Your task to perform on an android device: Open Yahoo.com Image 0: 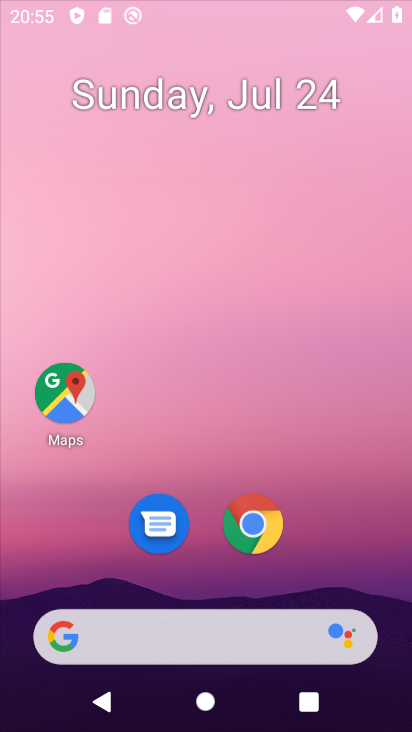
Step 0: press home button
Your task to perform on an android device: Open Yahoo.com Image 1: 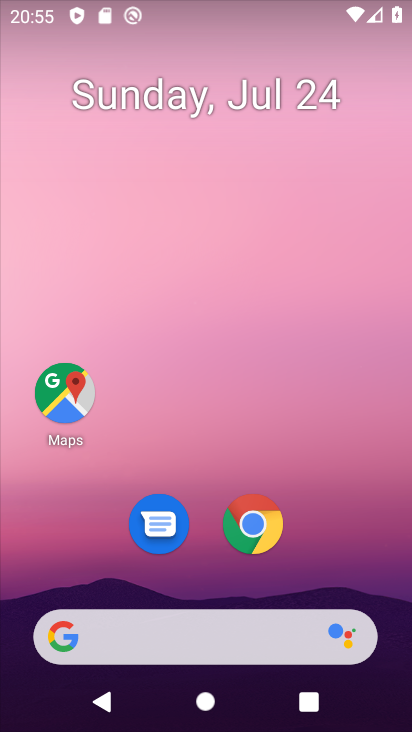
Step 1: click (247, 520)
Your task to perform on an android device: Open Yahoo.com Image 2: 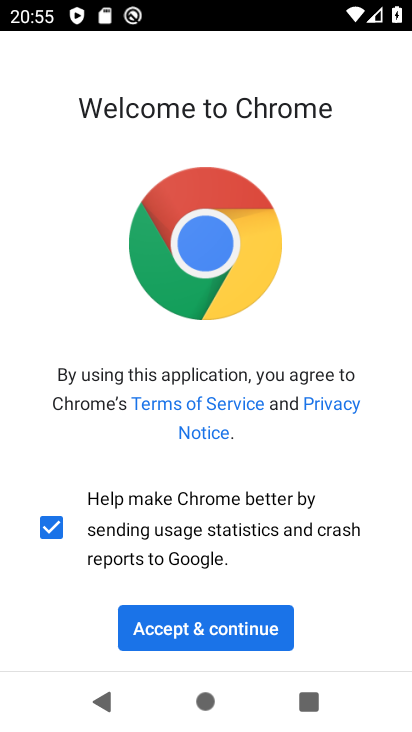
Step 2: click (198, 637)
Your task to perform on an android device: Open Yahoo.com Image 3: 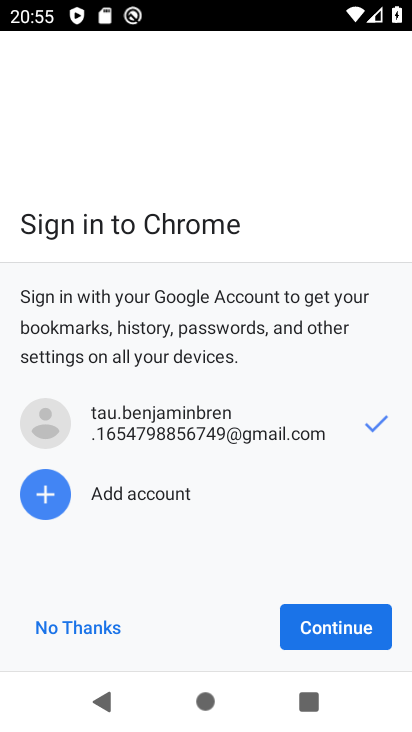
Step 3: click (337, 627)
Your task to perform on an android device: Open Yahoo.com Image 4: 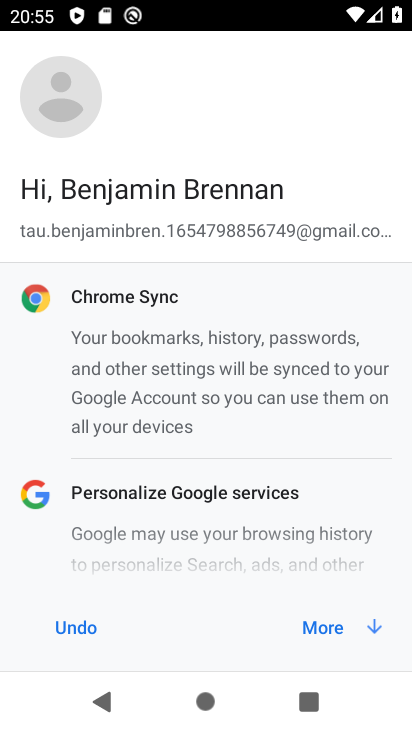
Step 4: click (337, 626)
Your task to perform on an android device: Open Yahoo.com Image 5: 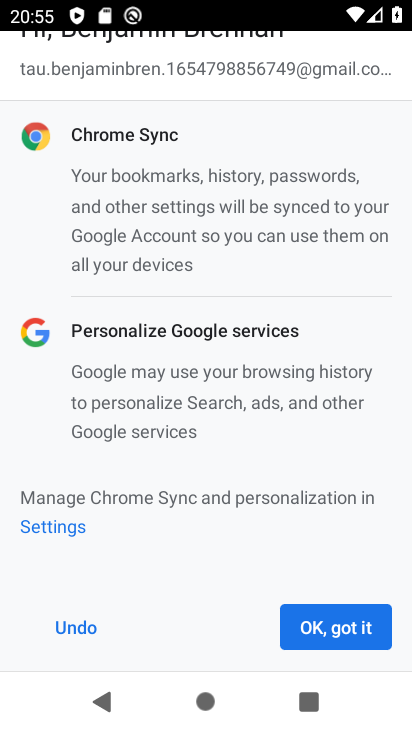
Step 5: click (337, 624)
Your task to perform on an android device: Open Yahoo.com Image 6: 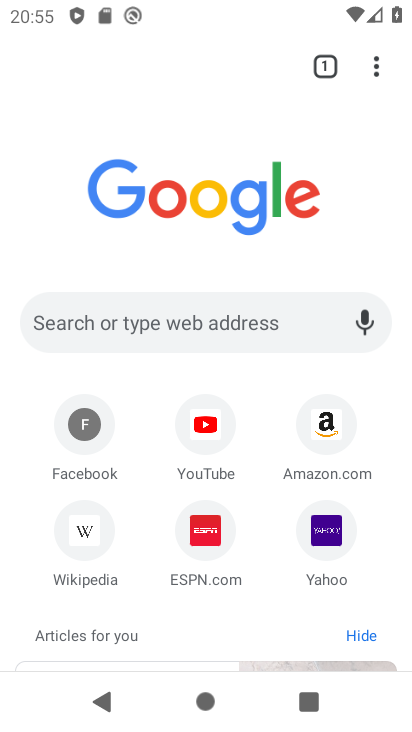
Step 6: click (335, 536)
Your task to perform on an android device: Open Yahoo.com Image 7: 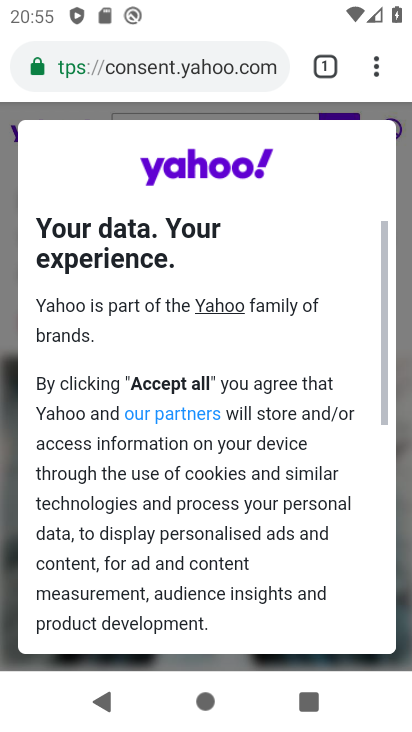
Step 7: drag from (258, 584) to (362, 134)
Your task to perform on an android device: Open Yahoo.com Image 8: 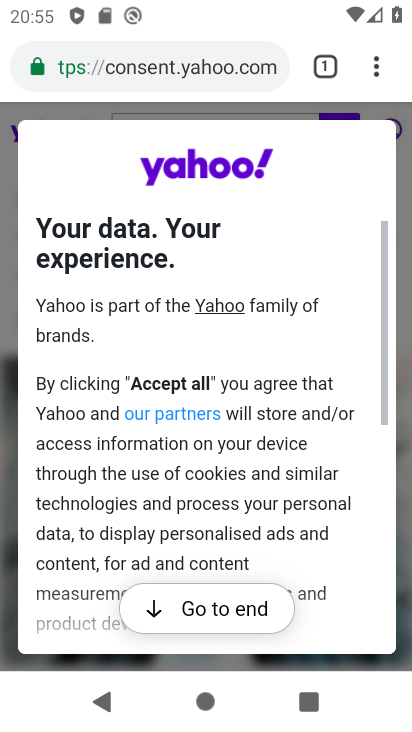
Step 8: click (210, 601)
Your task to perform on an android device: Open Yahoo.com Image 9: 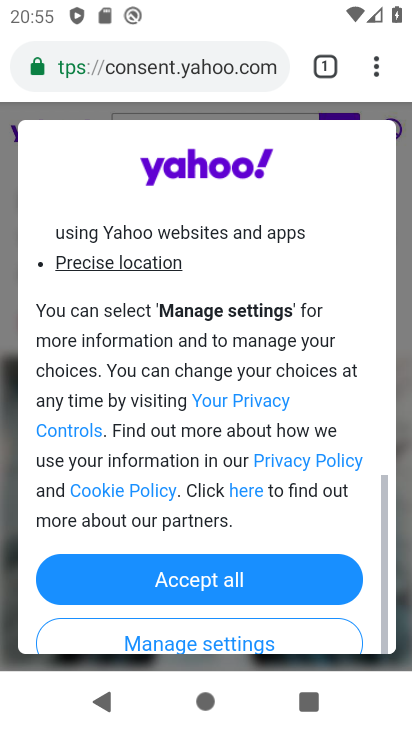
Step 9: click (212, 582)
Your task to perform on an android device: Open Yahoo.com Image 10: 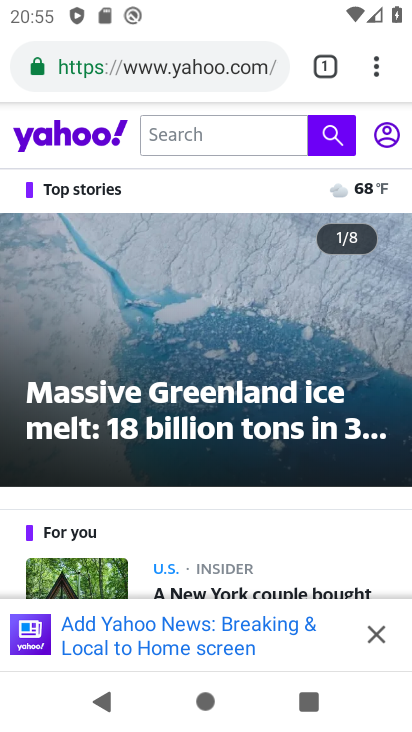
Step 10: task complete